Your task to perform on an android device: toggle notification dots Image 0: 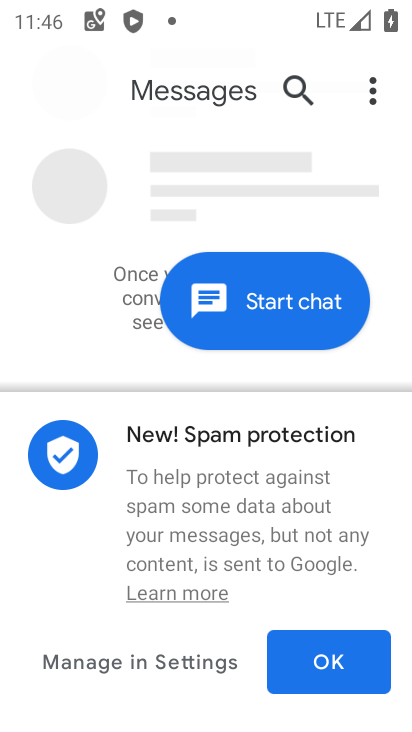
Step 0: press home button
Your task to perform on an android device: toggle notification dots Image 1: 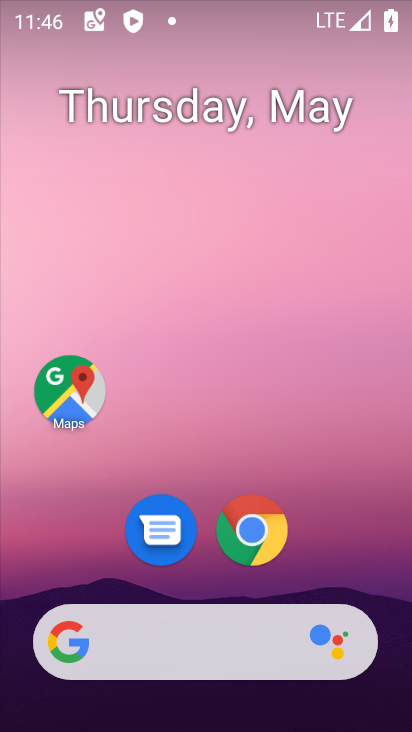
Step 1: drag from (248, 725) to (233, 144)
Your task to perform on an android device: toggle notification dots Image 2: 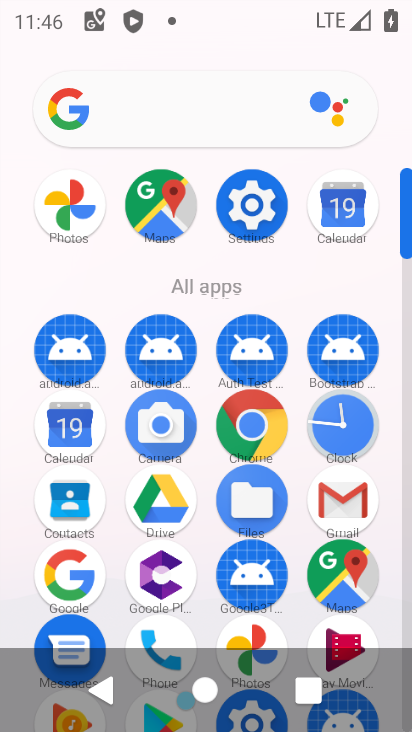
Step 2: click (268, 214)
Your task to perform on an android device: toggle notification dots Image 3: 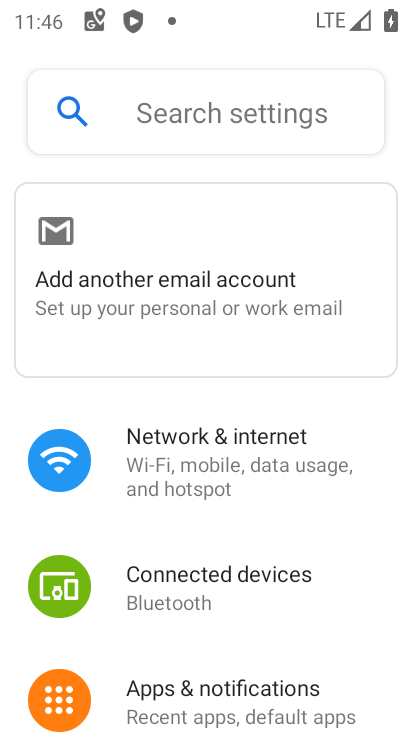
Step 3: click (209, 689)
Your task to perform on an android device: toggle notification dots Image 4: 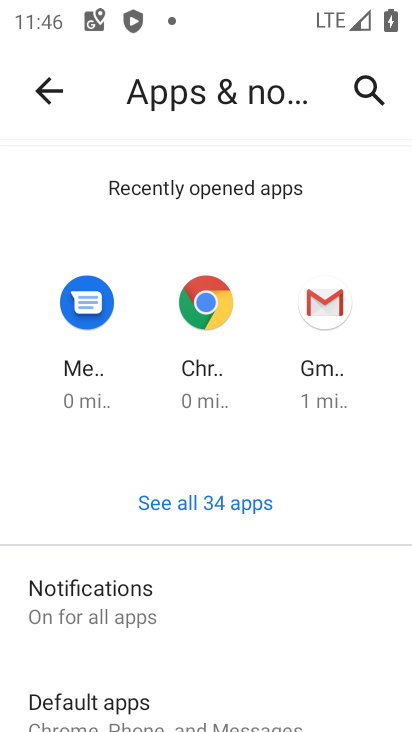
Step 4: drag from (258, 664) to (165, 100)
Your task to perform on an android device: toggle notification dots Image 5: 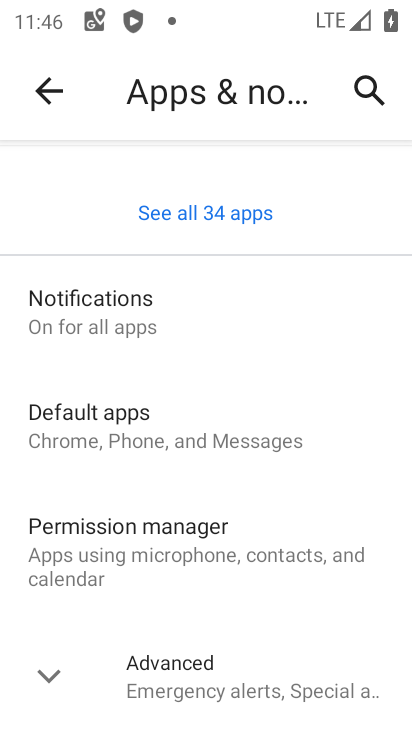
Step 5: click (194, 310)
Your task to perform on an android device: toggle notification dots Image 6: 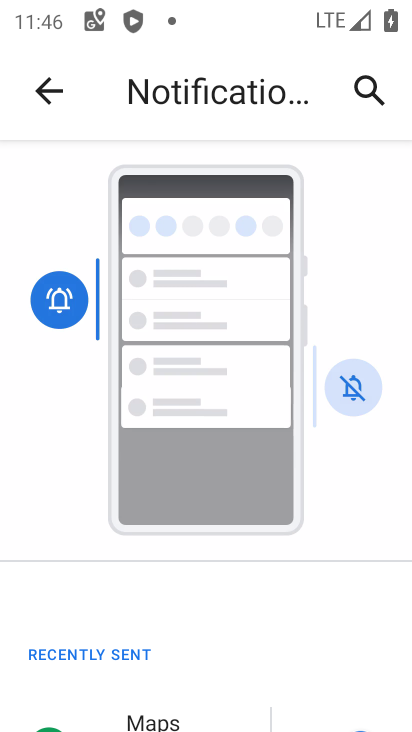
Step 6: drag from (213, 635) to (203, 16)
Your task to perform on an android device: toggle notification dots Image 7: 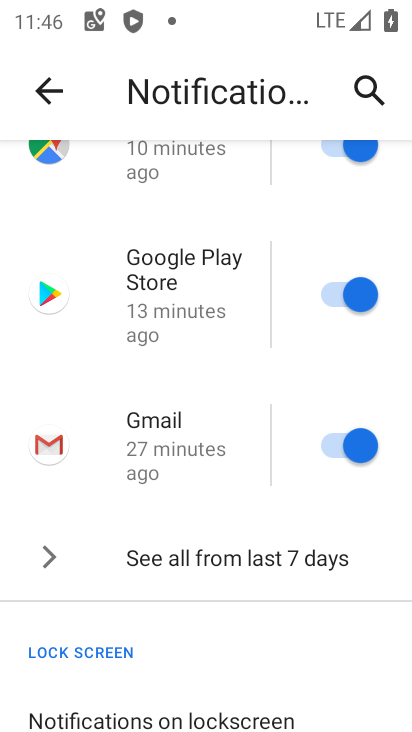
Step 7: drag from (237, 673) to (210, 52)
Your task to perform on an android device: toggle notification dots Image 8: 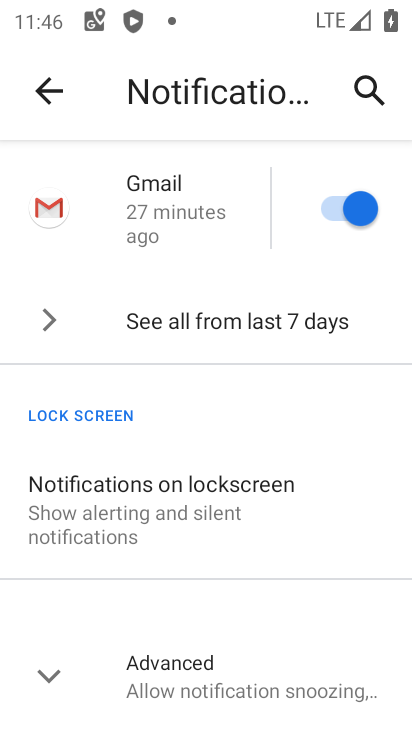
Step 8: click (221, 682)
Your task to perform on an android device: toggle notification dots Image 9: 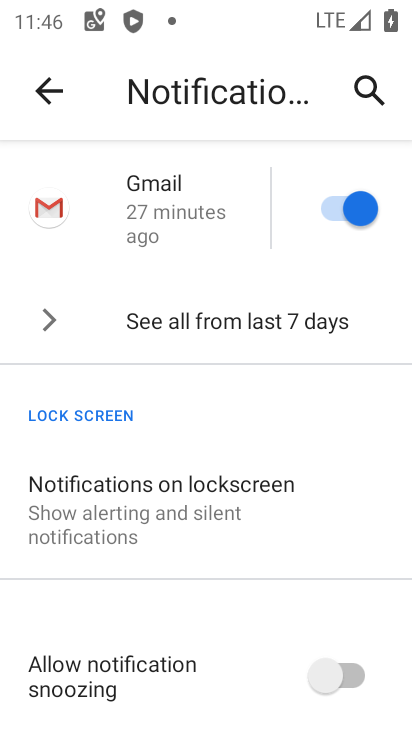
Step 9: drag from (222, 683) to (218, 67)
Your task to perform on an android device: toggle notification dots Image 10: 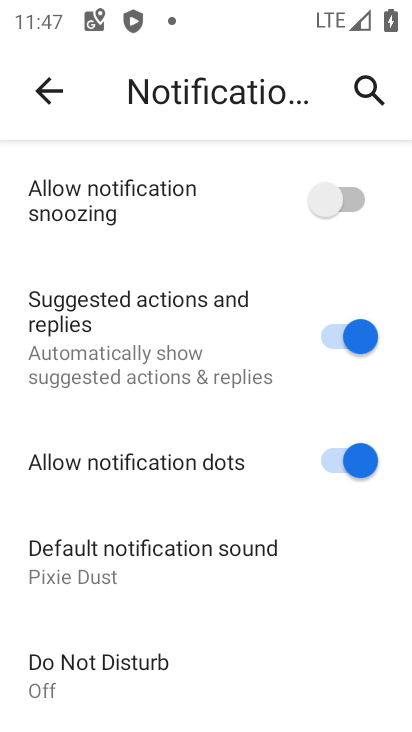
Step 10: click (350, 459)
Your task to perform on an android device: toggle notification dots Image 11: 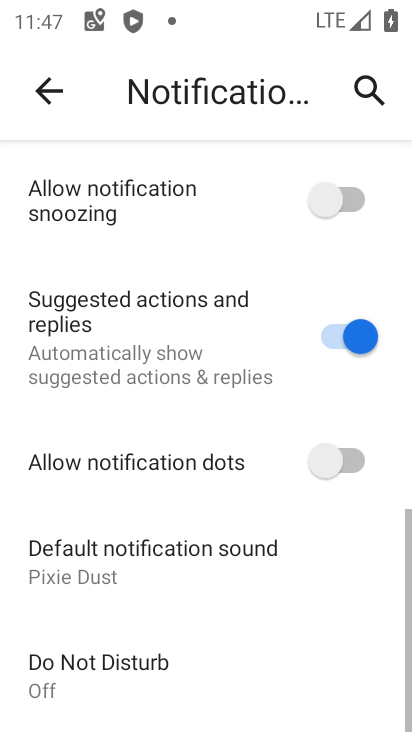
Step 11: task complete